Your task to perform on an android device: turn off wifi Image 0: 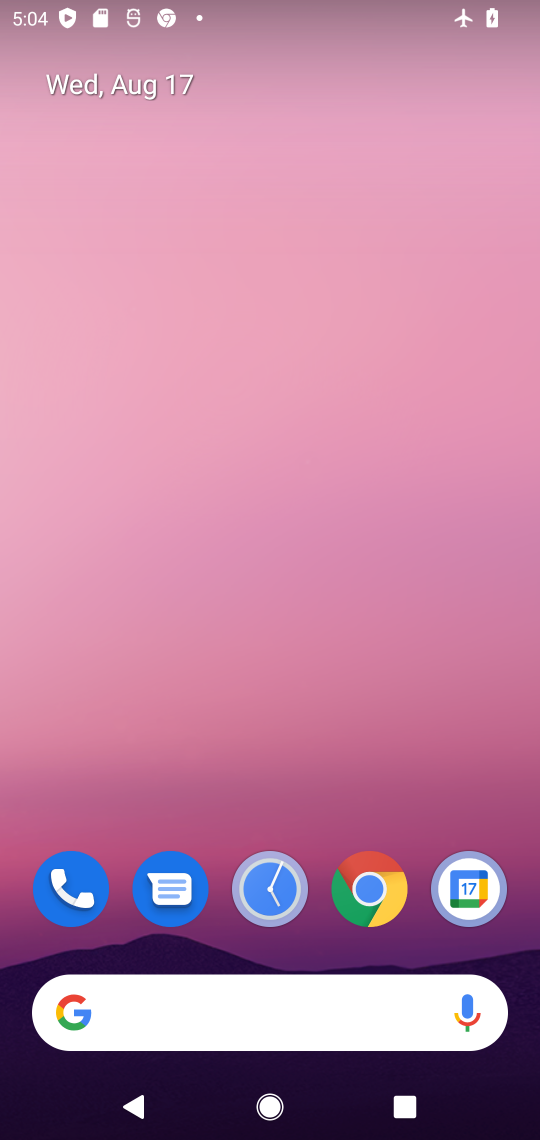
Step 0: drag from (300, 812) to (351, 211)
Your task to perform on an android device: turn off wifi Image 1: 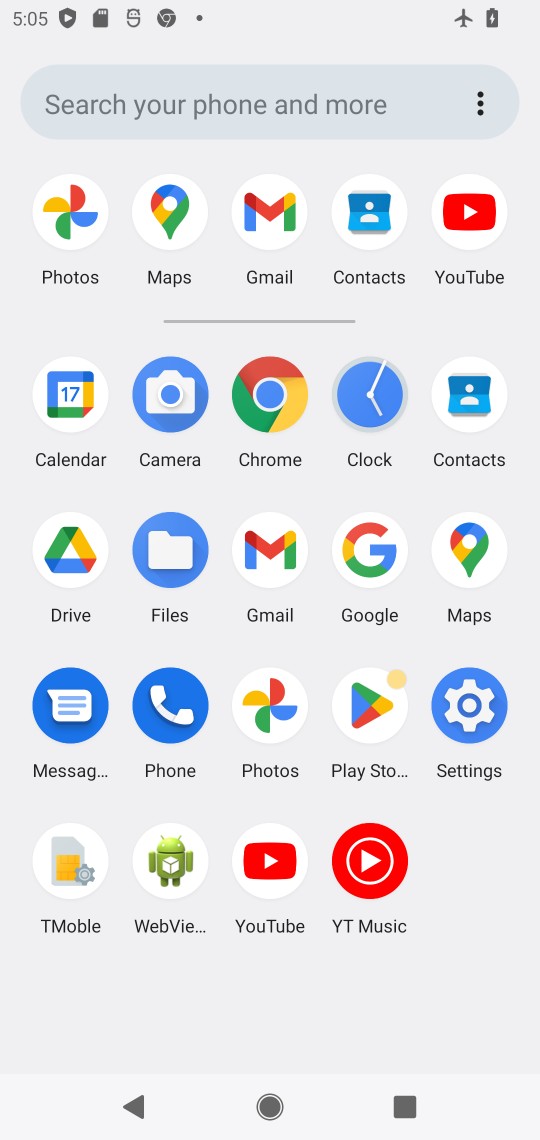
Step 1: click (470, 705)
Your task to perform on an android device: turn off wifi Image 2: 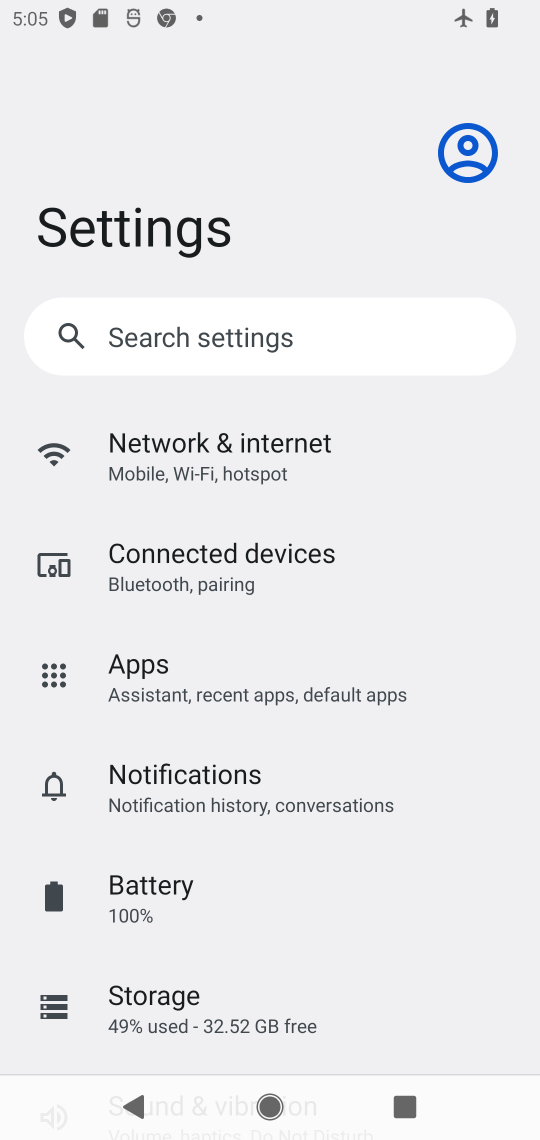
Step 2: click (219, 445)
Your task to perform on an android device: turn off wifi Image 3: 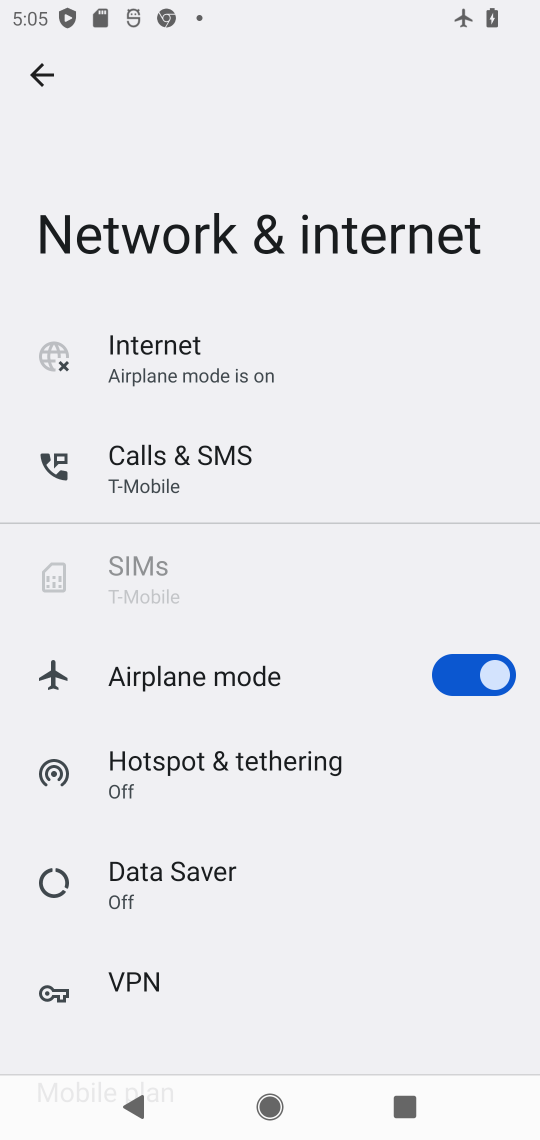
Step 3: click (159, 344)
Your task to perform on an android device: turn off wifi Image 4: 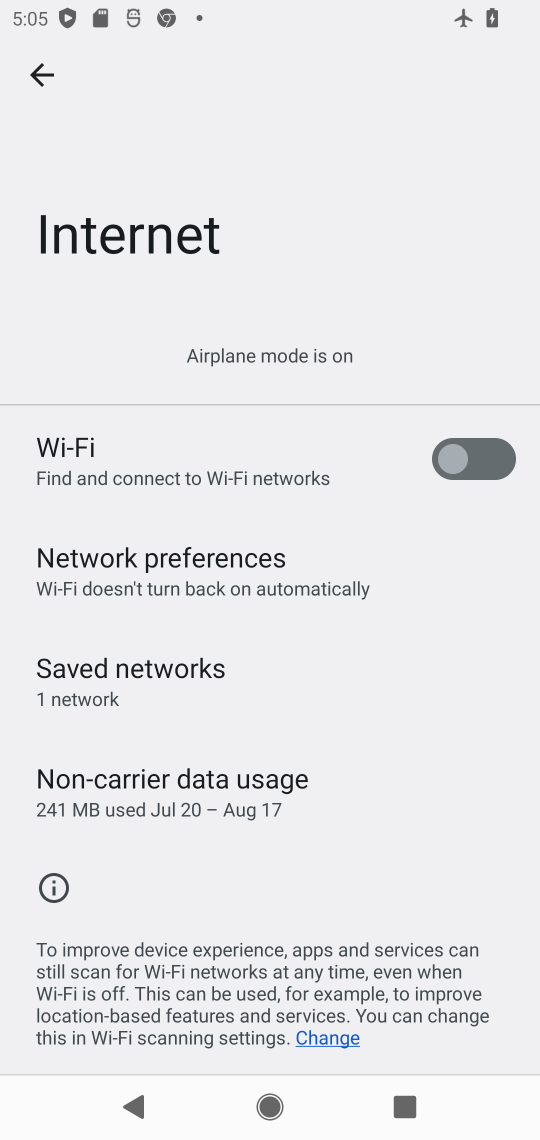
Step 4: task complete